Your task to perform on an android device: toggle sleep mode Image 0: 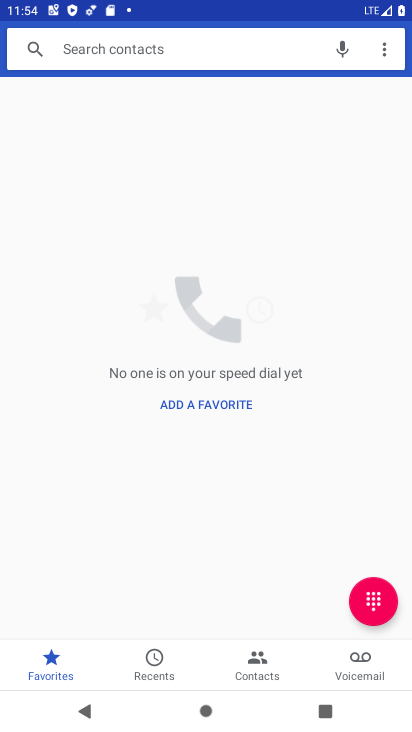
Step 0: press home button
Your task to perform on an android device: toggle sleep mode Image 1: 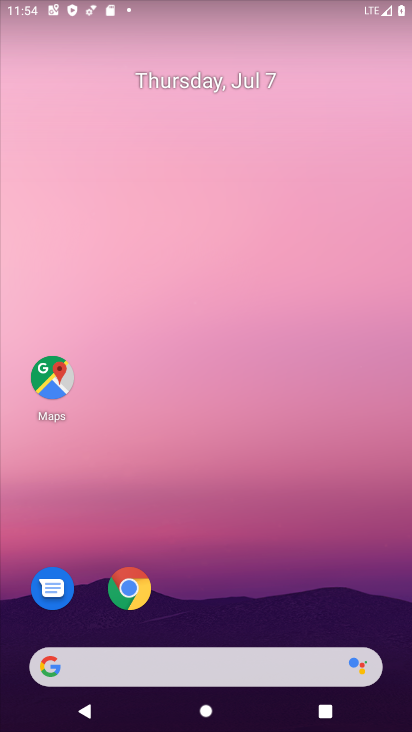
Step 1: drag from (234, 621) to (227, 131)
Your task to perform on an android device: toggle sleep mode Image 2: 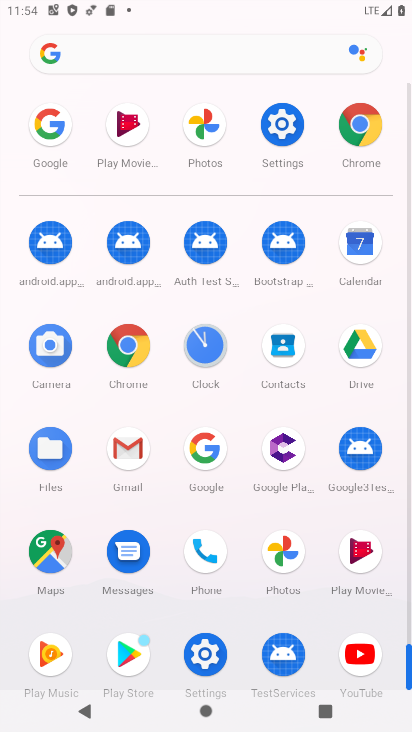
Step 2: click (281, 124)
Your task to perform on an android device: toggle sleep mode Image 3: 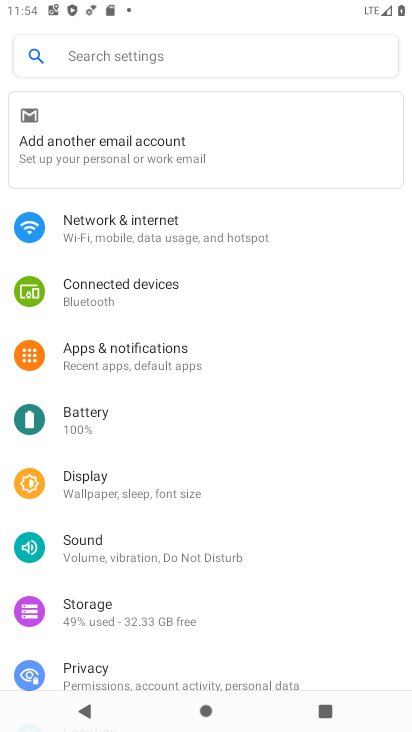
Step 3: click (126, 474)
Your task to perform on an android device: toggle sleep mode Image 4: 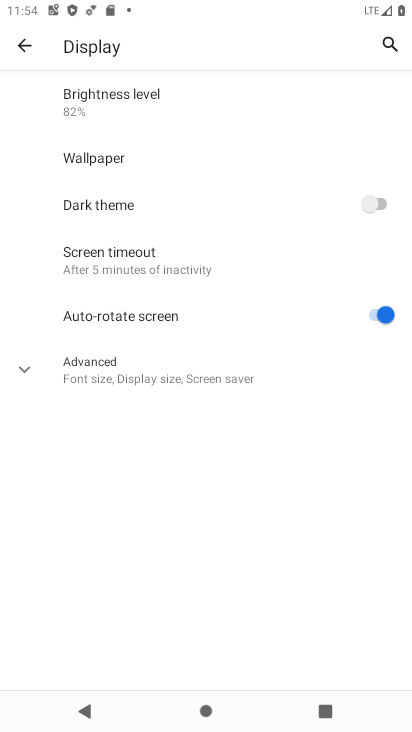
Step 4: click (122, 260)
Your task to perform on an android device: toggle sleep mode Image 5: 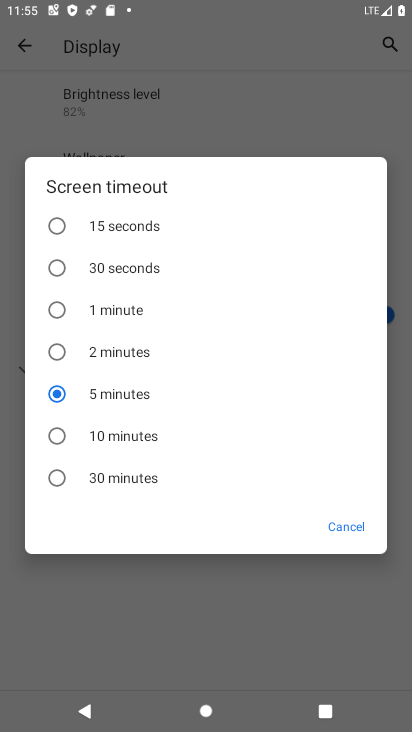
Step 5: click (56, 355)
Your task to perform on an android device: toggle sleep mode Image 6: 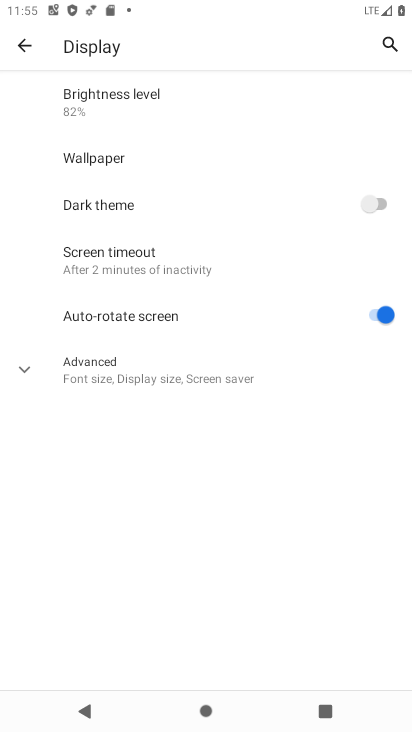
Step 6: task complete